Your task to perform on an android device: manage bookmarks in the chrome app Image 0: 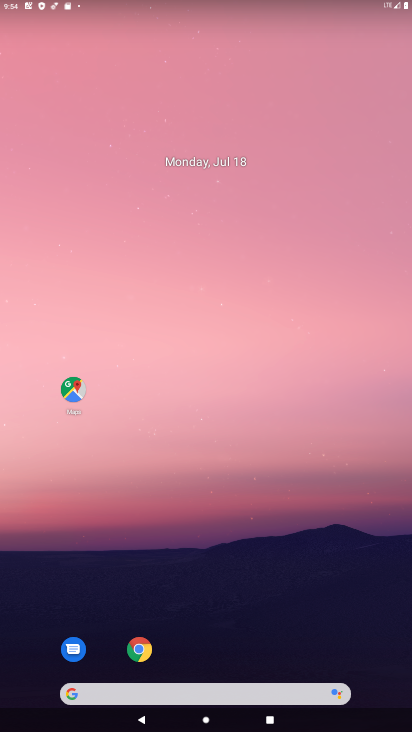
Step 0: click (146, 654)
Your task to perform on an android device: manage bookmarks in the chrome app Image 1: 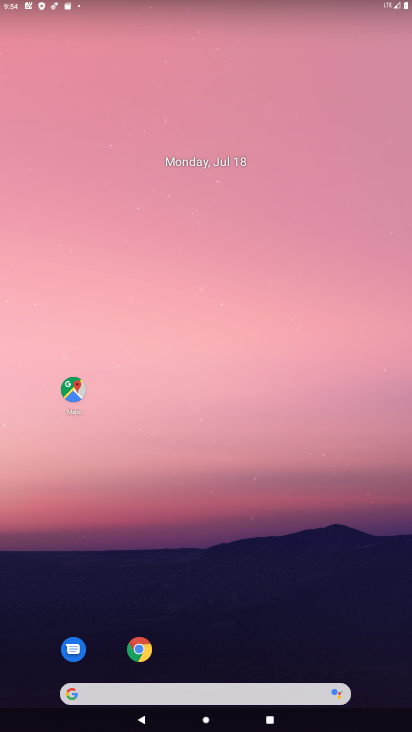
Step 1: click (146, 654)
Your task to perform on an android device: manage bookmarks in the chrome app Image 2: 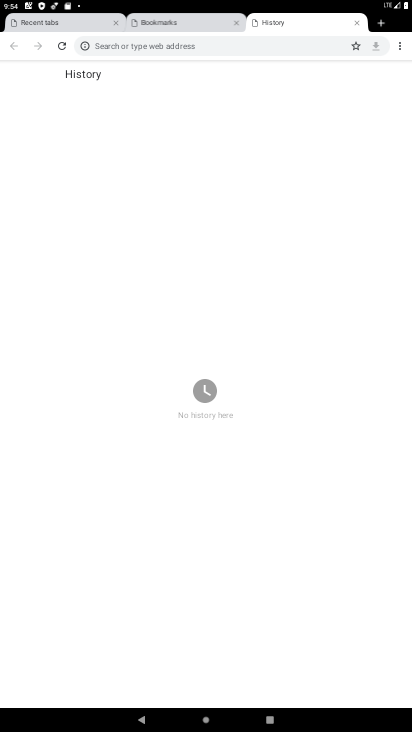
Step 2: click (404, 42)
Your task to perform on an android device: manage bookmarks in the chrome app Image 3: 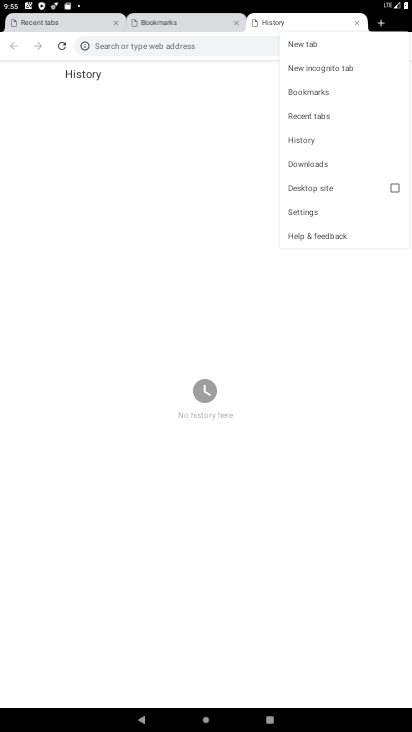
Step 3: click (323, 89)
Your task to perform on an android device: manage bookmarks in the chrome app Image 4: 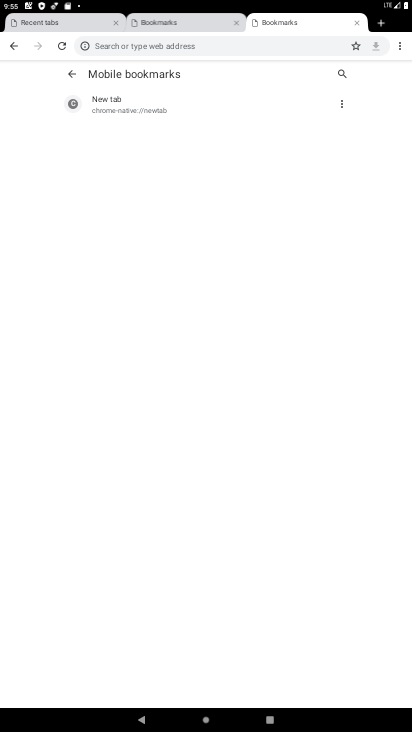
Step 4: click (338, 104)
Your task to perform on an android device: manage bookmarks in the chrome app Image 5: 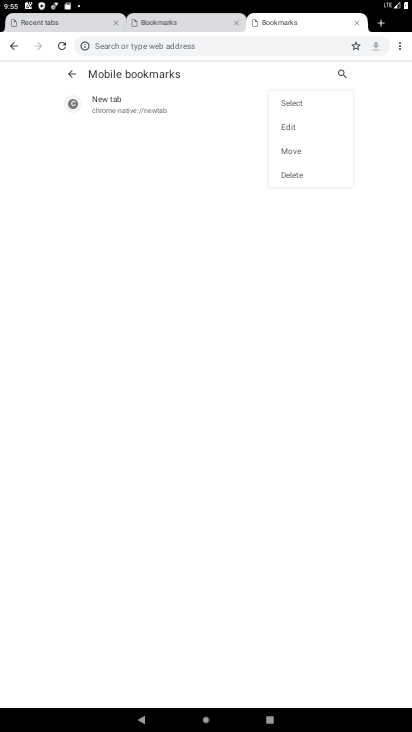
Step 5: click (304, 177)
Your task to perform on an android device: manage bookmarks in the chrome app Image 6: 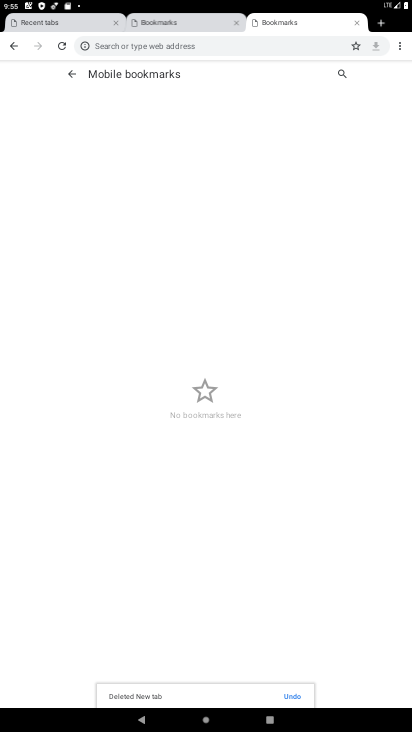
Step 6: task complete